Your task to perform on an android device: add a contact Image 0: 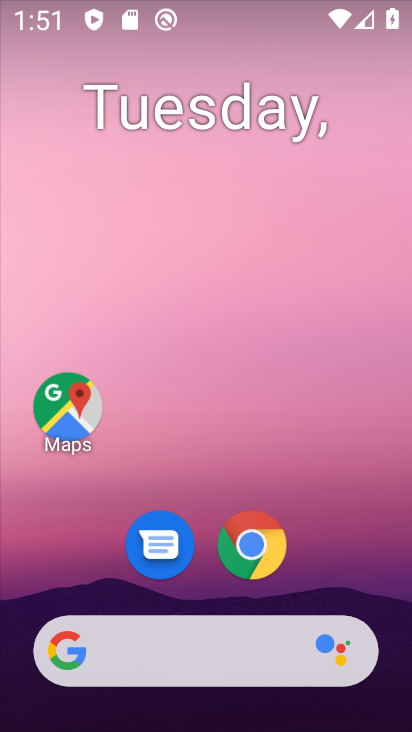
Step 0: drag from (348, 507) to (317, 44)
Your task to perform on an android device: add a contact Image 1: 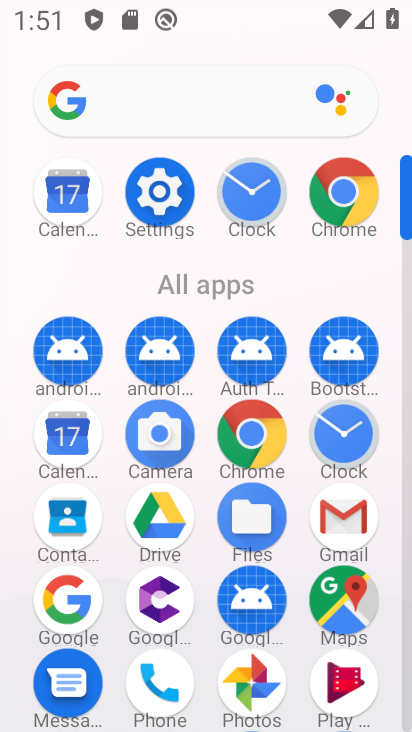
Step 1: drag from (13, 481) to (13, 223)
Your task to perform on an android device: add a contact Image 2: 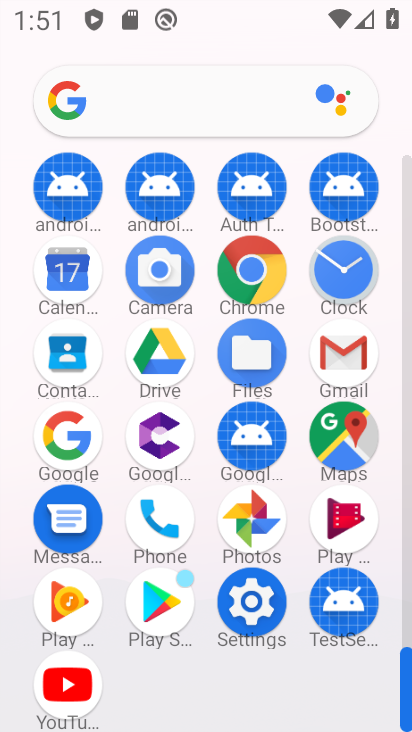
Step 2: click (65, 347)
Your task to perform on an android device: add a contact Image 3: 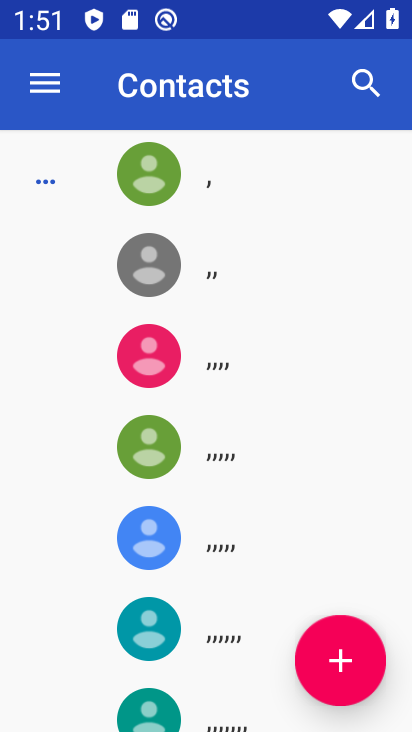
Step 3: click (356, 659)
Your task to perform on an android device: add a contact Image 4: 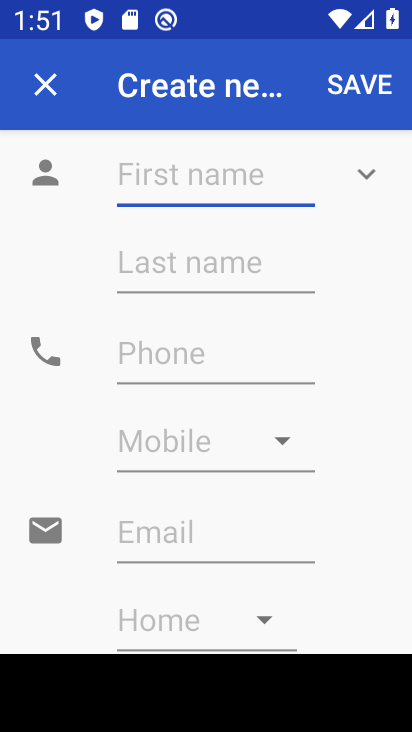
Step 4: type "CVBNM"
Your task to perform on an android device: add a contact Image 5: 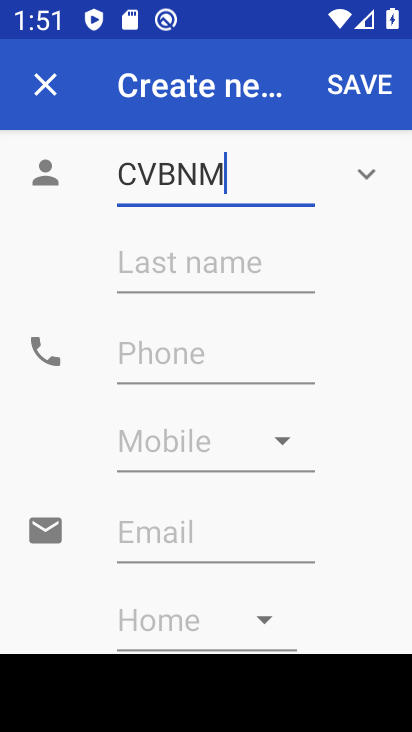
Step 5: type ""
Your task to perform on an android device: add a contact Image 6: 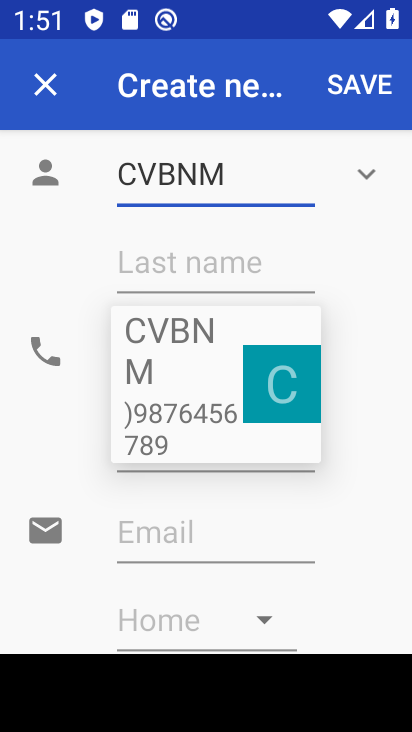
Step 6: click (170, 412)
Your task to perform on an android device: add a contact Image 7: 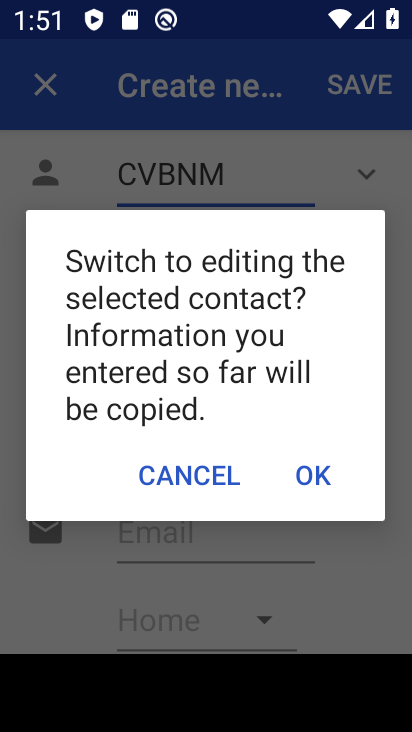
Step 7: click (312, 462)
Your task to perform on an android device: add a contact Image 8: 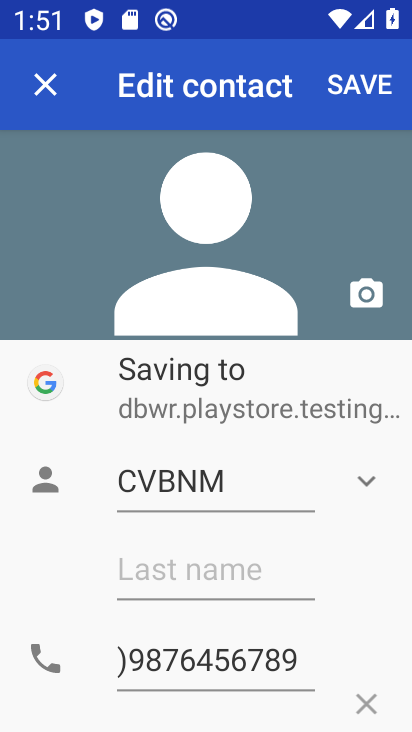
Step 8: click (359, 86)
Your task to perform on an android device: add a contact Image 9: 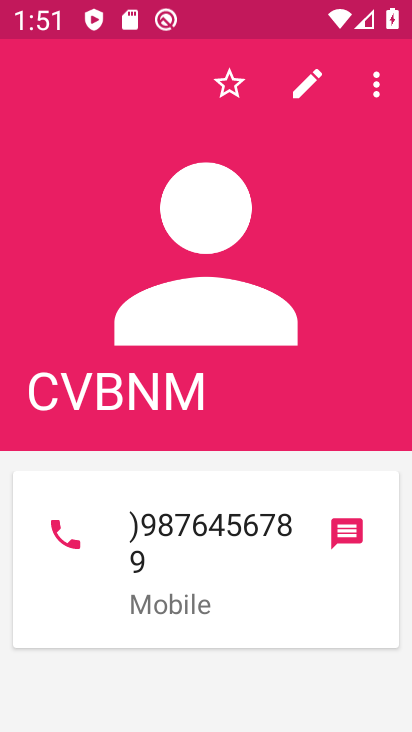
Step 9: task complete